Your task to perform on an android device: Turn off the flashlight Image 0: 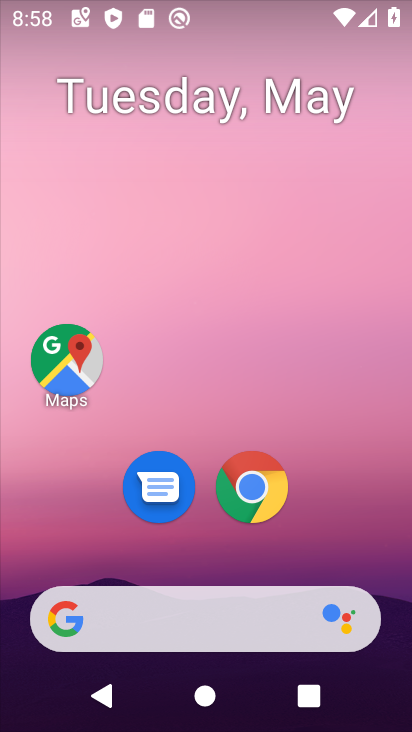
Step 0: drag from (240, 5) to (235, 327)
Your task to perform on an android device: Turn off the flashlight Image 1: 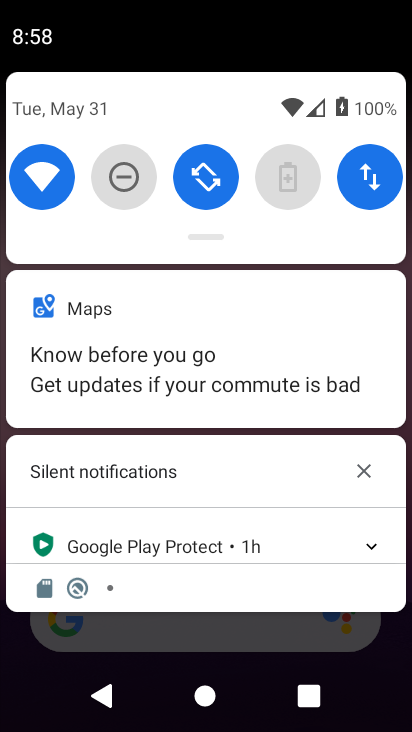
Step 1: drag from (250, 103) to (252, 334)
Your task to perform on an android device: Turn off the flashlight Image 2: 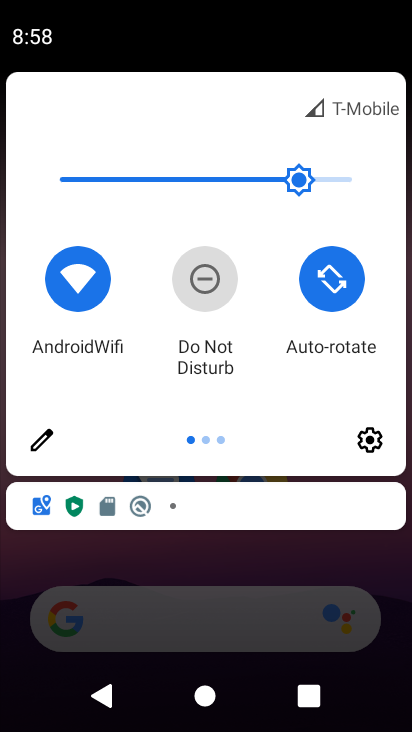
Step 2: click (54, 440)
Your task to perform on an android device: Turn off the flashlight Image 3: 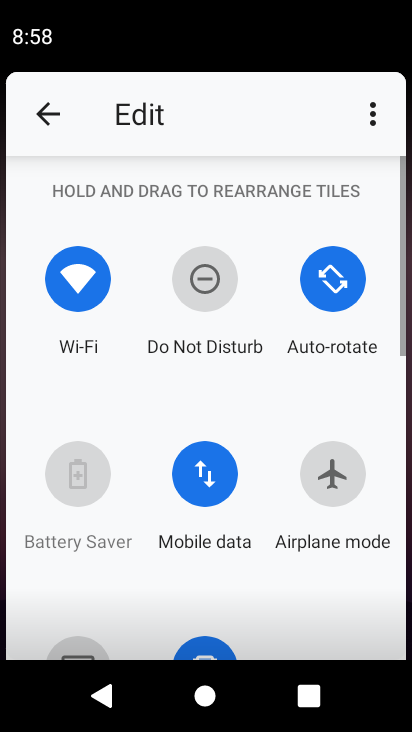
Step 3: task complete